Your task to perform on an android device: see sites visited before in the chrome app Image 0: 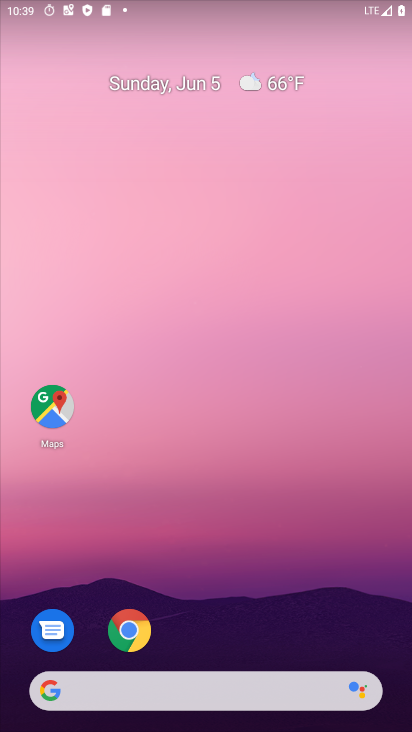
Step 0: click (127, 630)
Your task to perform on an android device: see sites visited before in the chrome app Image 1: 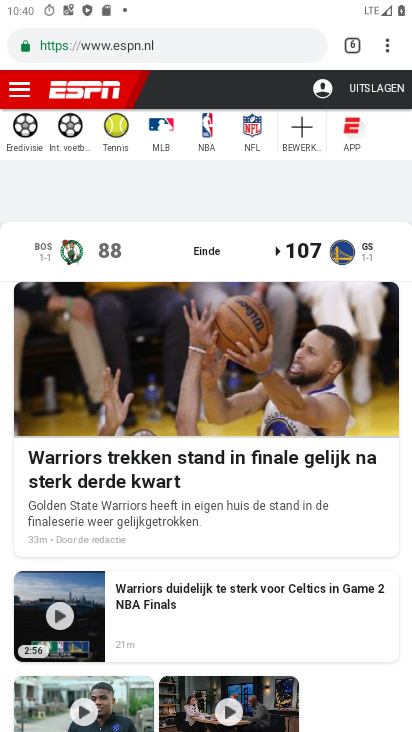
Step 1: click (389, 51)
Your task to perform on an android device: see sites visited before in the chrome app Image 2: 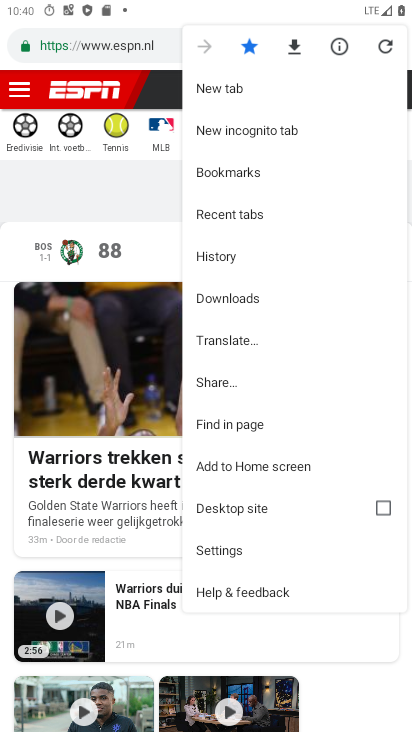
Step 2: click (216, 252)
Your task to perform on an android device: see sites visited before in the chrome app Image 3: 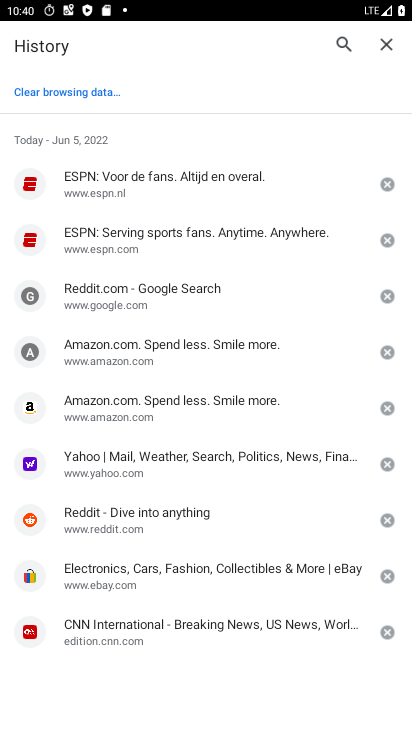
Step 3: task complete